Your task to perform on an android device: check google app version Image 0: 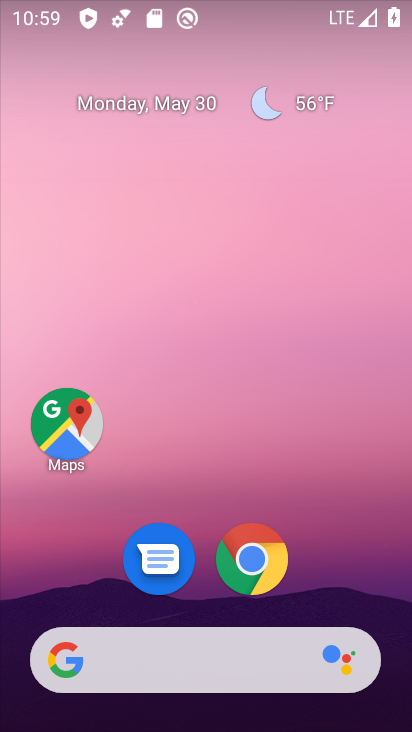
Step 0: drag from (376, 585) to (289, 60)
Your task to perform on an android device: check google app version Image 1: 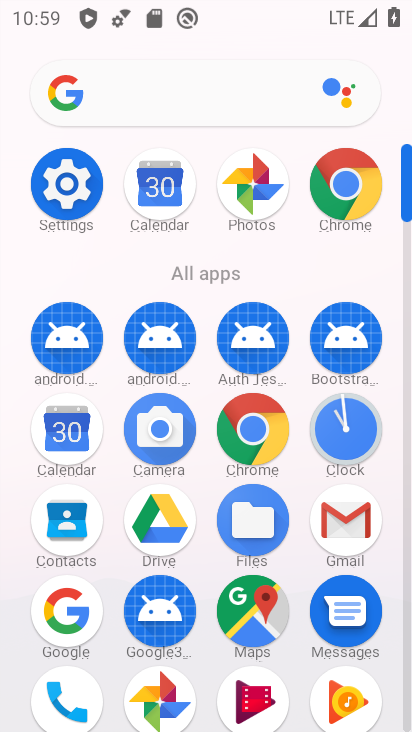
Step 1: click (344, 192)
Your task to perform on an android device: check google app version Image 2: 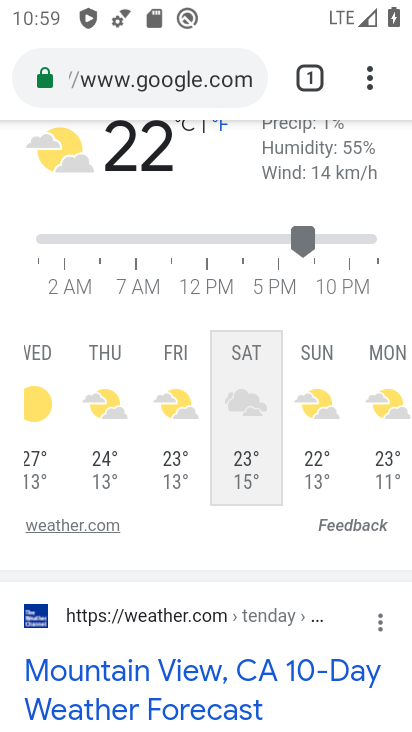
Step 2: click (381, 70)
Your task to perform on an android device: check google app version Image 3: 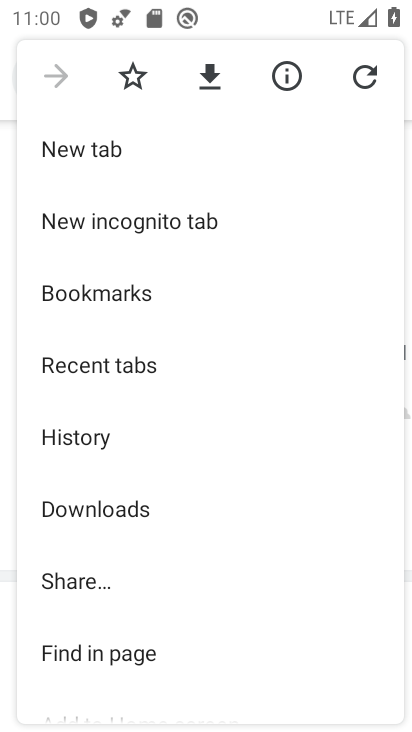
Step 3: drag from (225, 667) to (230, 321)
Your task to perform on an android device: check google app version Image 4: 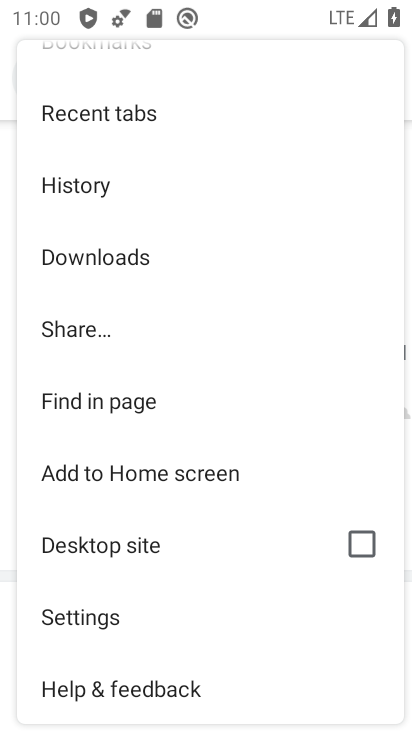
Step 4: click (192, 681)
Your task to perform on an android device: check google app version Image 5: 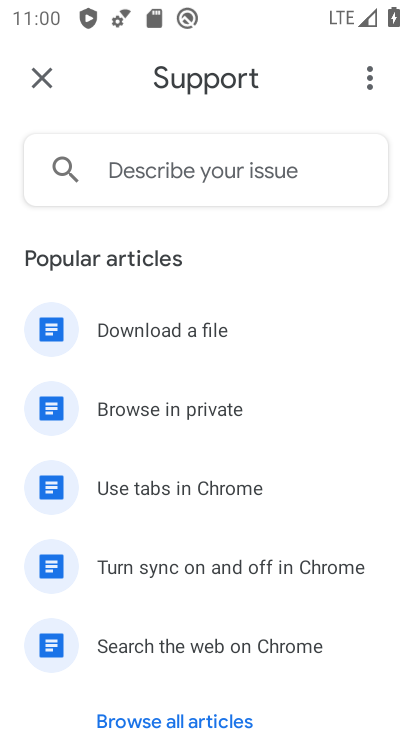
Step 5: click (376, 90)
Your task to perform on an android device: check google app version Image 6: 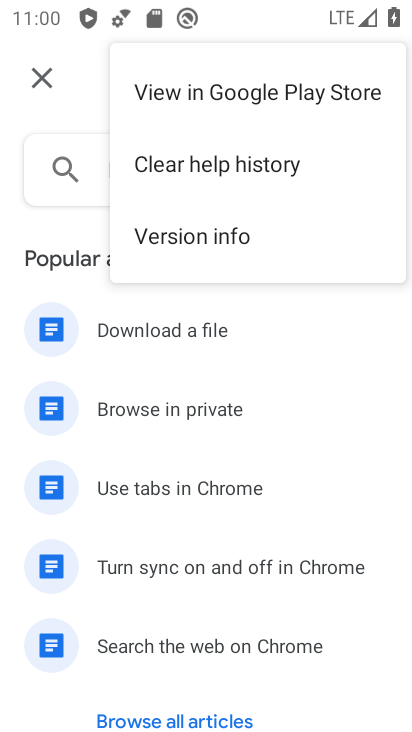
Step 6: click (315, 239)
Your task to perform on an android device: check google app version Image 7: 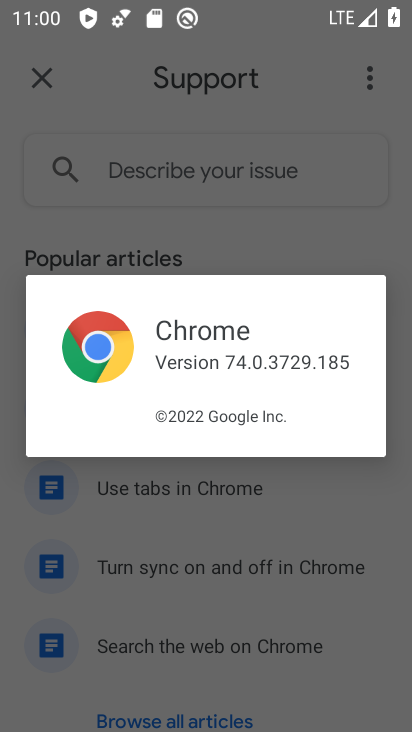
Step 7: task complete